Your task to perform on an android device: allow cookies in the chrome app Image 0: 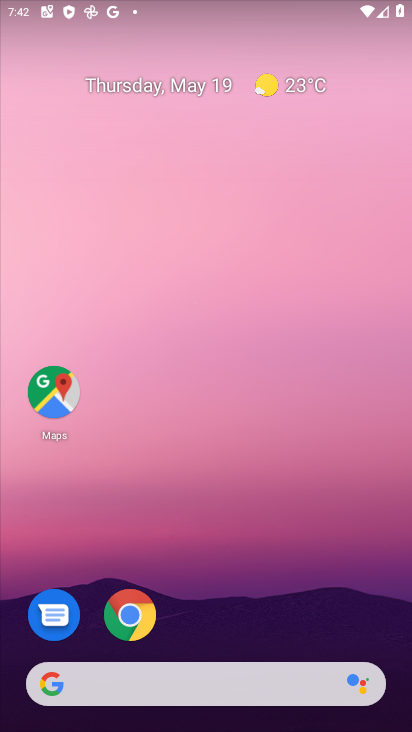
Step 0: drag from (334, 610) to (225, 111)
Your task to perform on an android device: allow cookies in the chrome app Image 1: 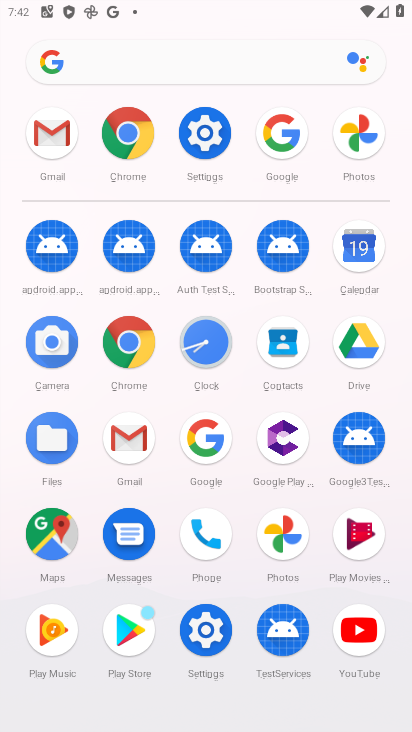
Step 1: click (138, 152)
Your task to perform on an android device: allow cookies in the chrome app Image 2: 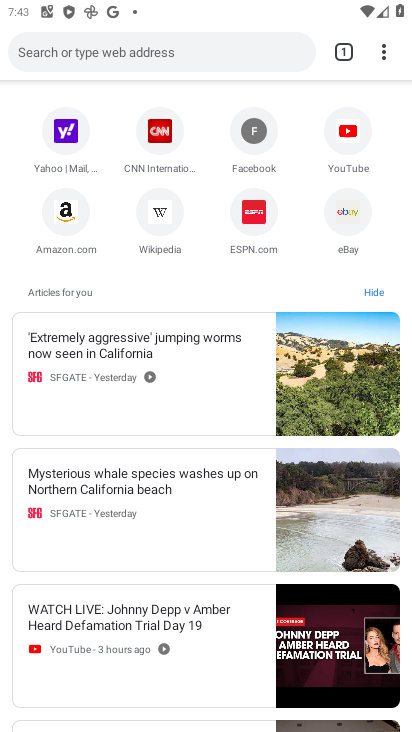
Step 2: click (378, 51)
Your task to perform on an android device: allow cookies in the chrome app Image 3: 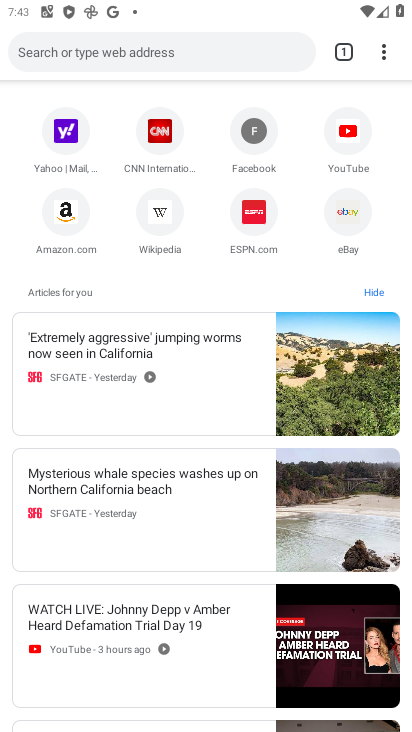
Step 3: click (384, 44)
Your task to perform on an android device: allow cookies in the chrome app Image 4: 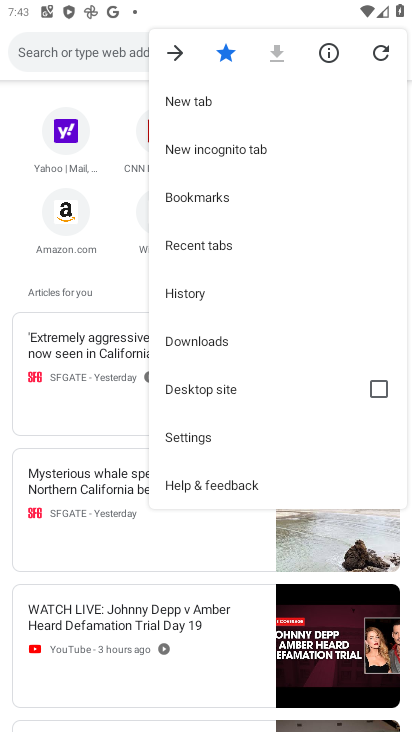
Step 4: click (219, 300)
Your task to perform on an android device: allow cookies in the chrome app Image 5: 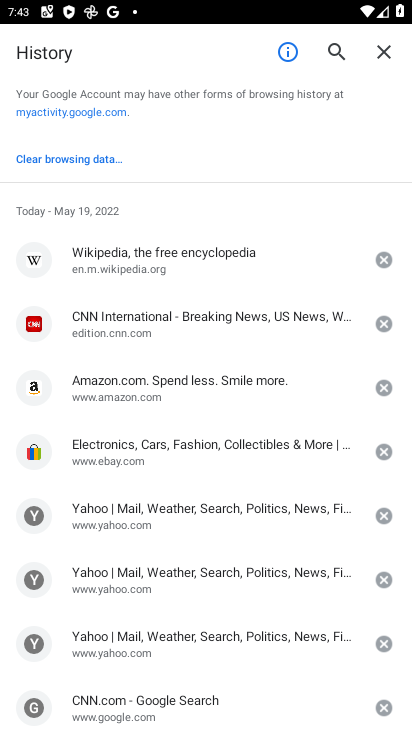
Step 5: click (86, 160)
Your task to perform on an android device: allow cookies in the chrome app Image 6: 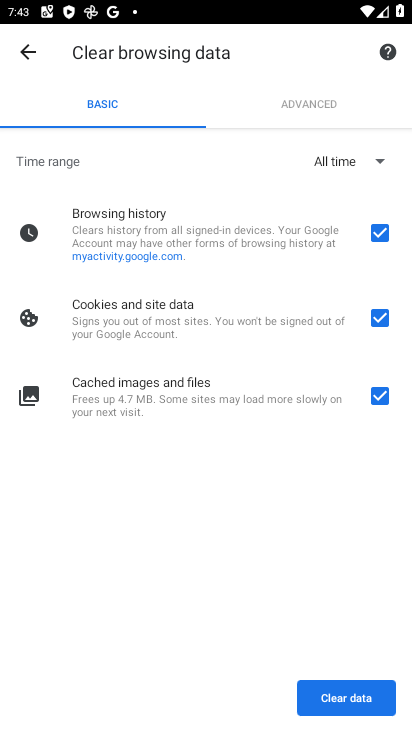
Step 6: task complete